Your task to perform on an android device: move a message to another label in the gmail app Image 0: 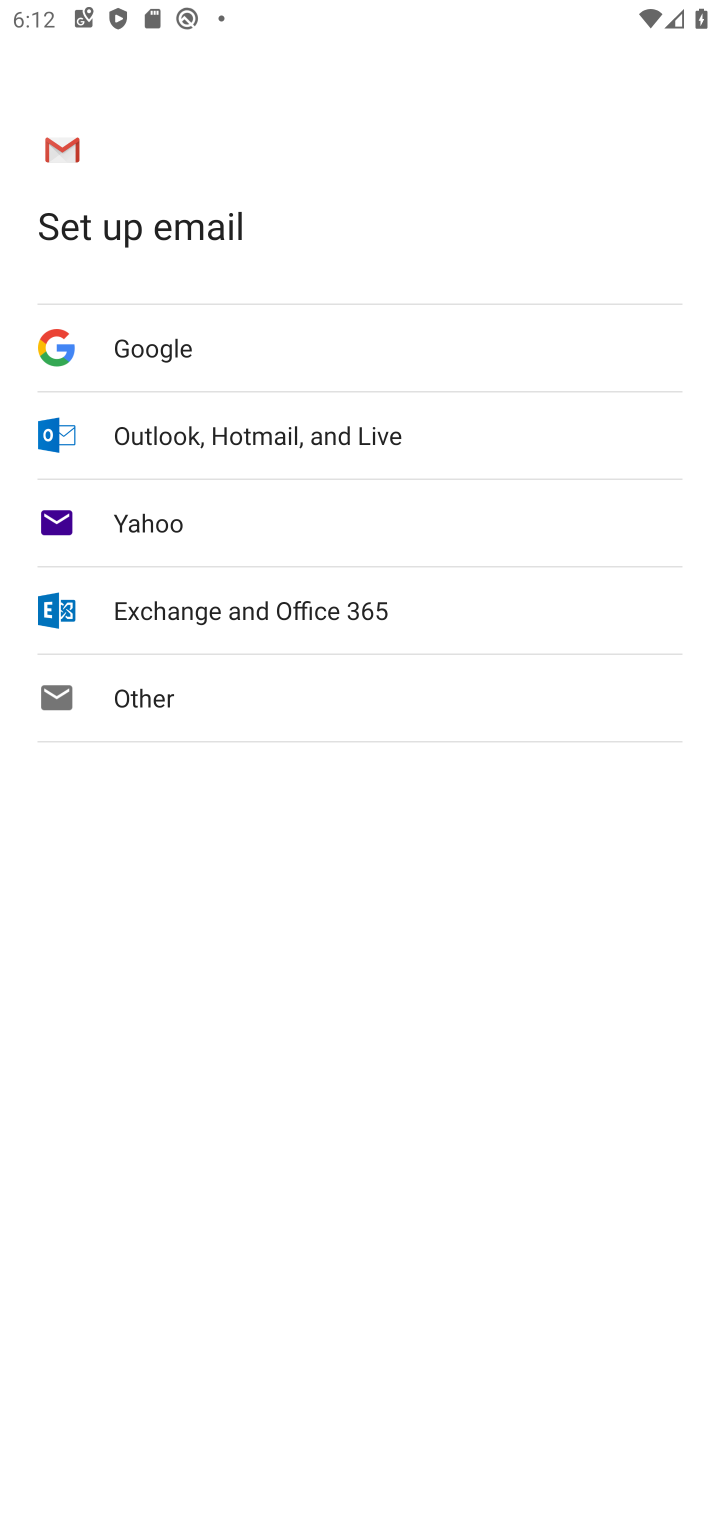
Step 0: press back button
Your task to perform on an android device: move a message to another label in the gmail app Image 1: 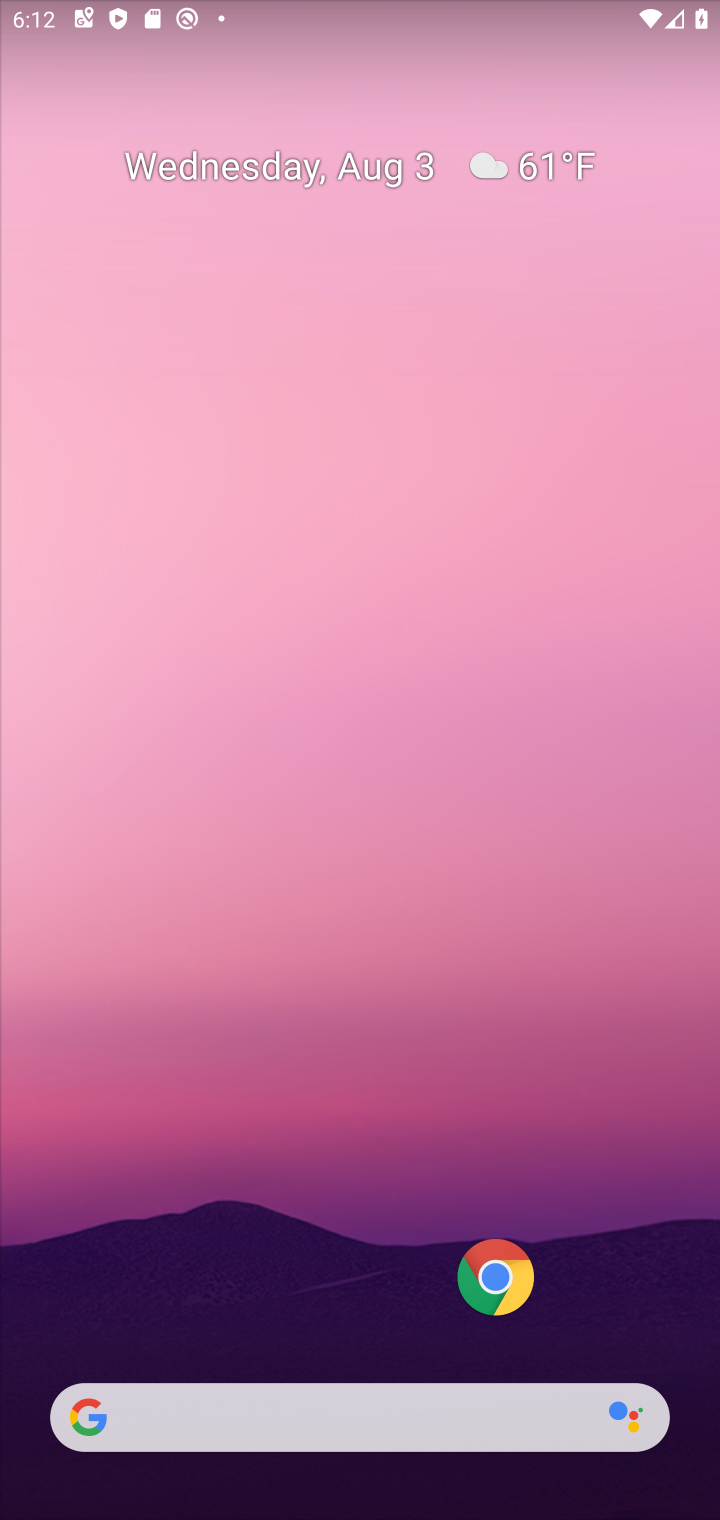
Step 1: drag from (341, 942) to (568, 25)
Your task to perform on an android device: move a message to another label in the gmail app Image 2: 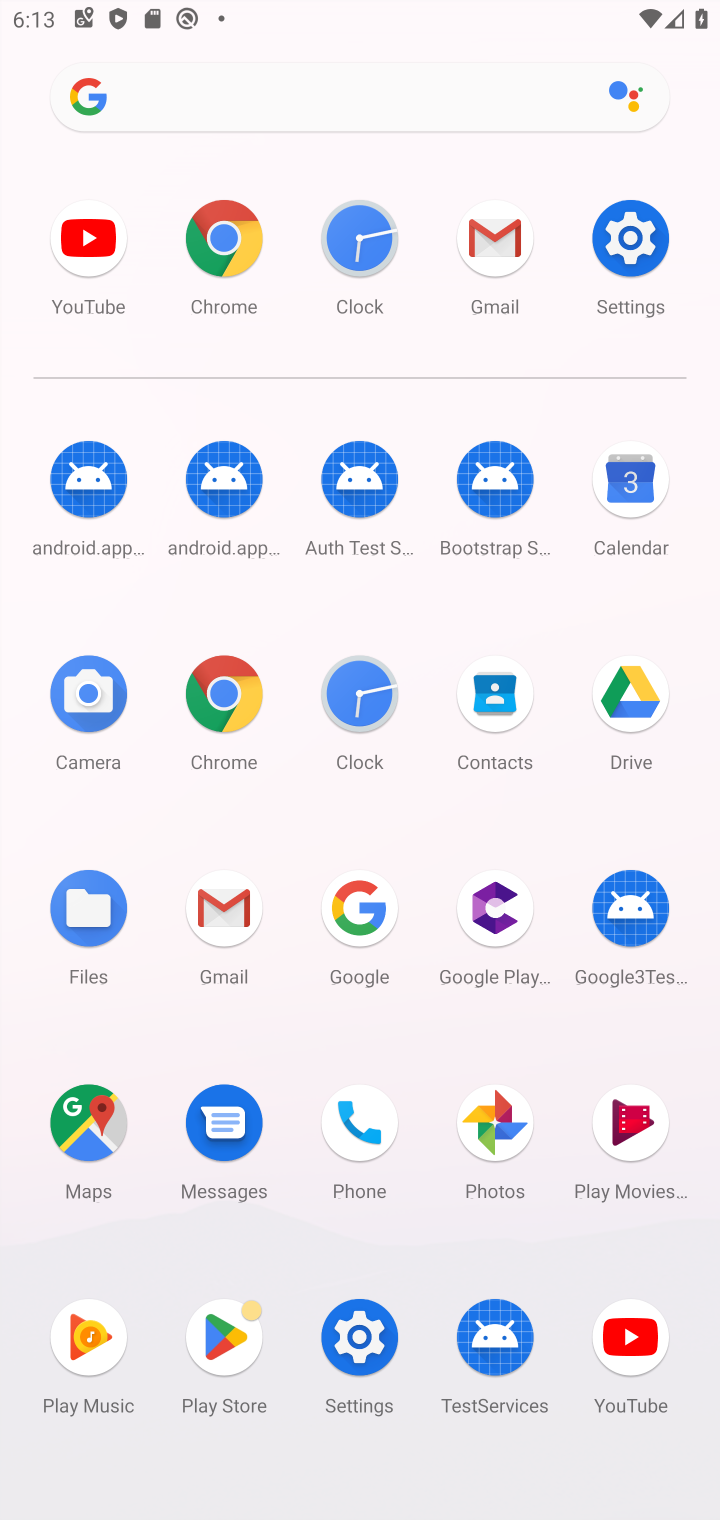
Step 2: click (506, 245)
Your task to perform on an android device: move a message to another label in the gmail app Image 3: 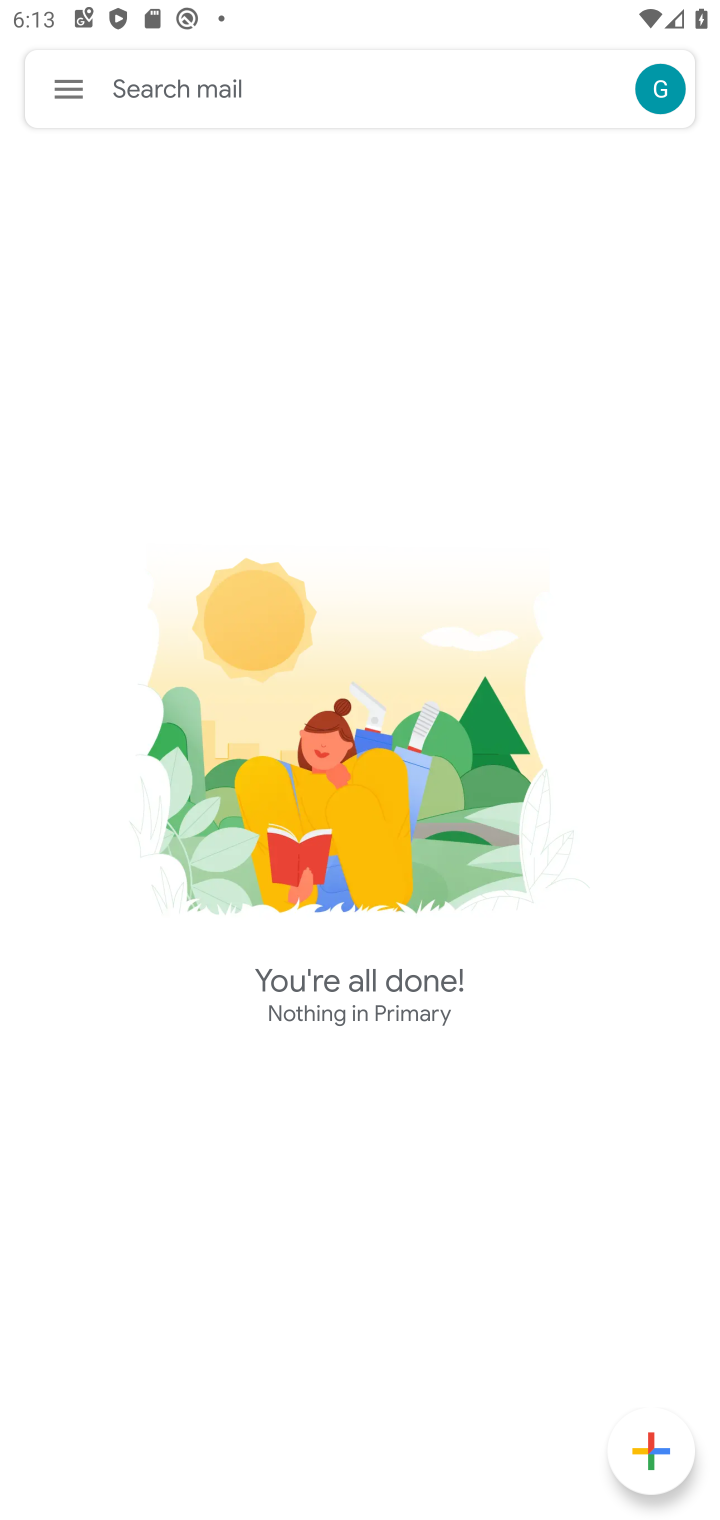
Step 3: click (46, 76)
Your task to perform on an android device: move a message to another label in the gmail app Image 4: 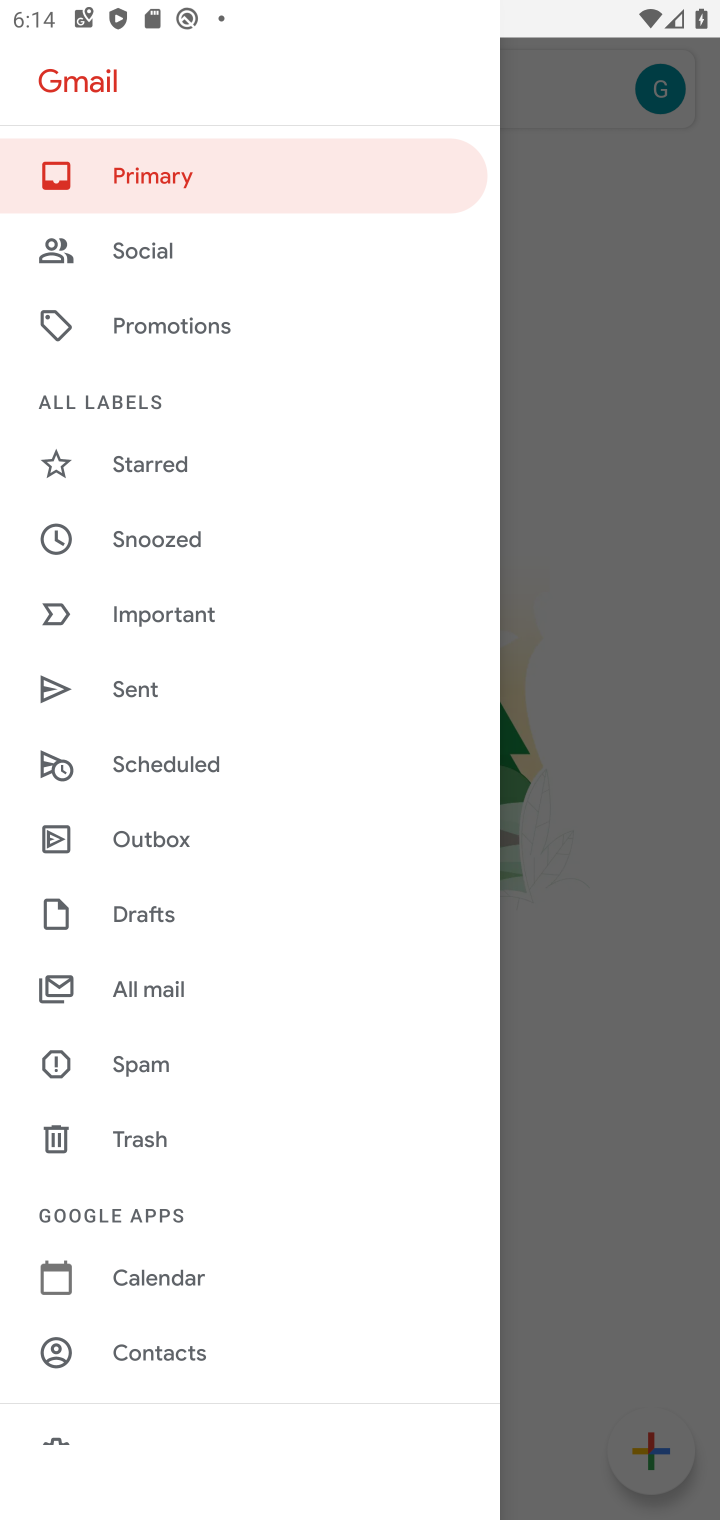
Step 4: click (214, 992)
Your task to perform on an android device: move a message to another label in the gmail app Image 5: 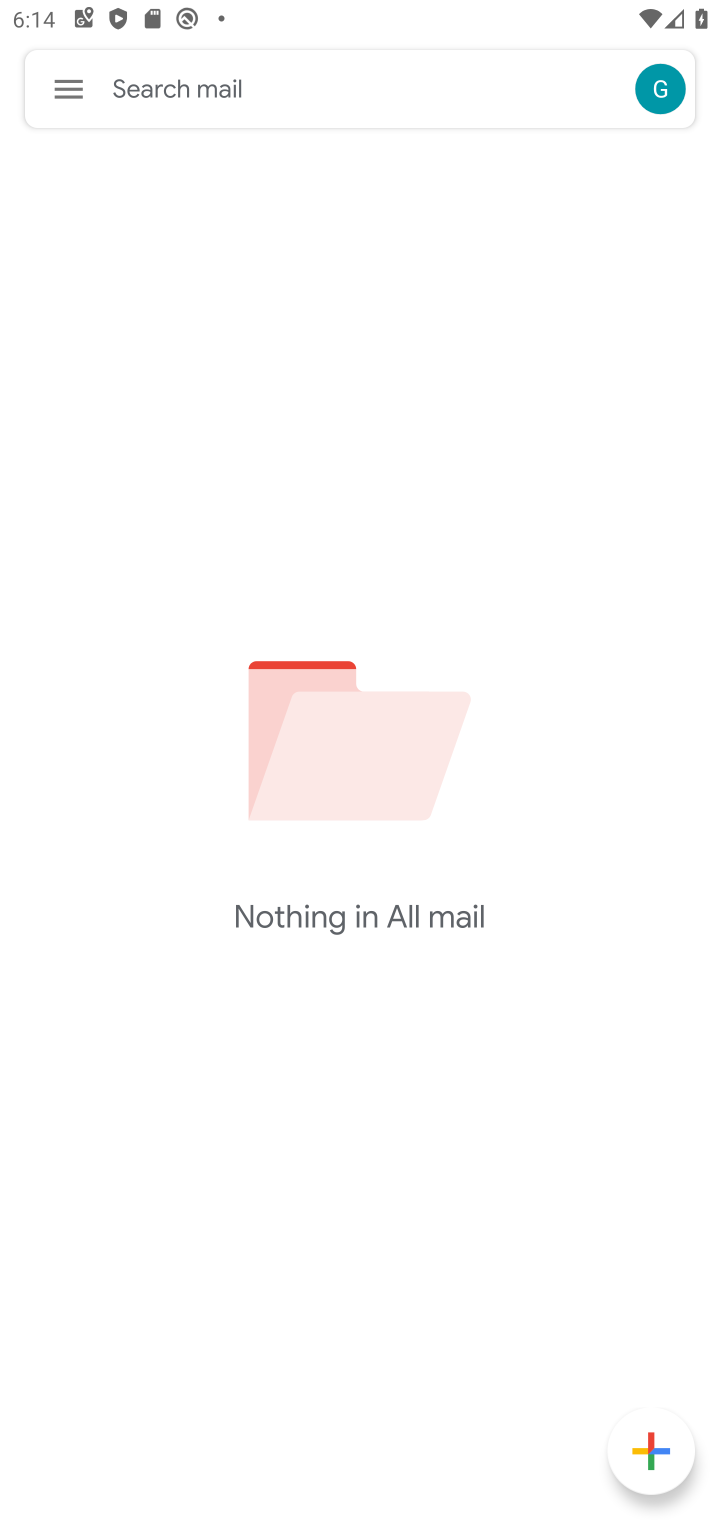
Step 5: task complete